Your task to perform on an android device: What's on my calendar today? Image 0: 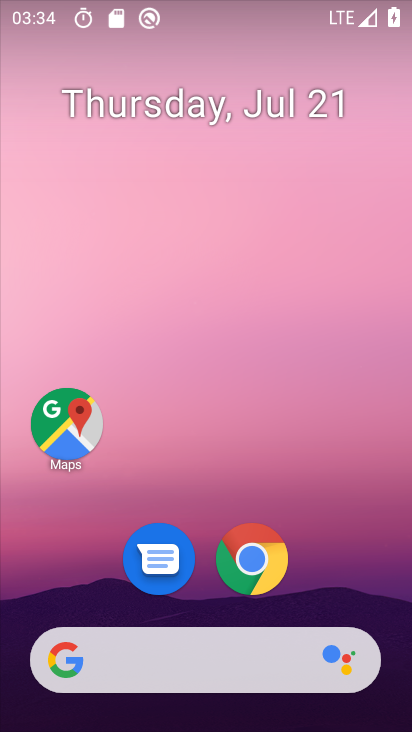
Step 0: drag from (335, 559) to (335, 79)
Your task to perform on an android device: What's on my calendar today? Image 1: 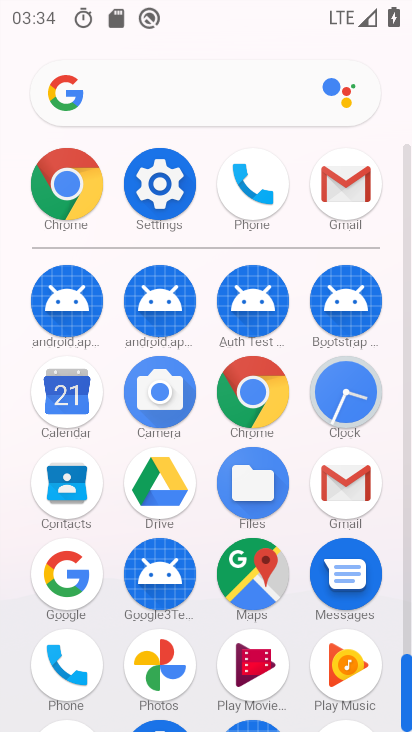
Step 1: click (74, 391)
Your task to perform on an android device: What's on my calendar today? Image 2: 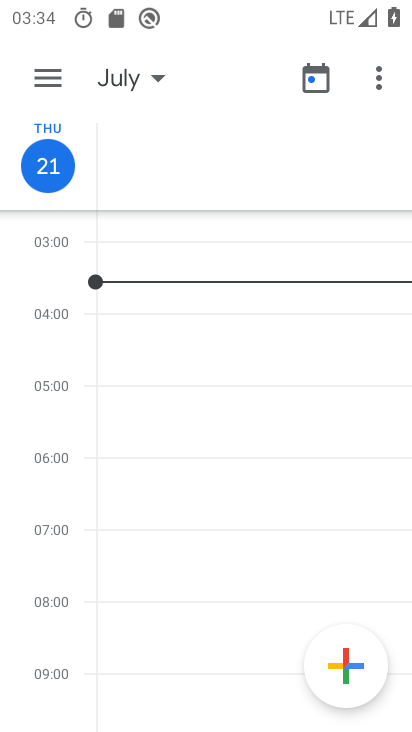
Step 2: click (157, 79)
Your task to perform on an android device: What's on my calendar today? Image 3: 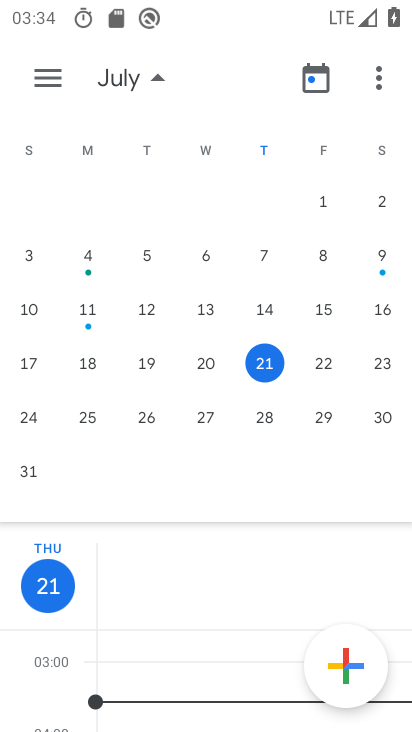
Step 3: click (268, 368)
Your task to perform on an android device: What's on my calendar today? Image 4: 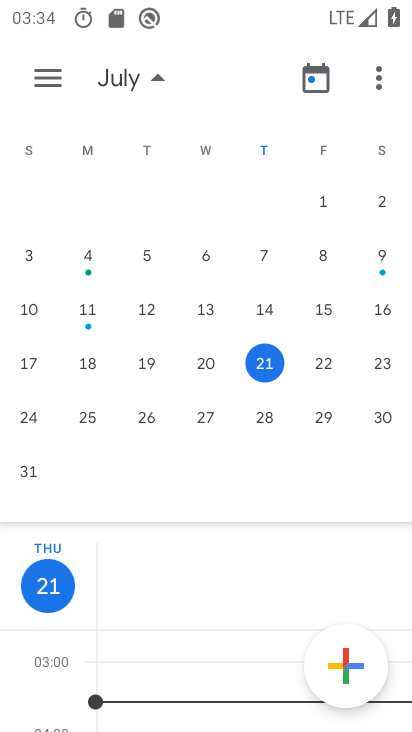
Step 4: task complete